Your task to perform on an android device: toggle translation in the chrome app Image 0: 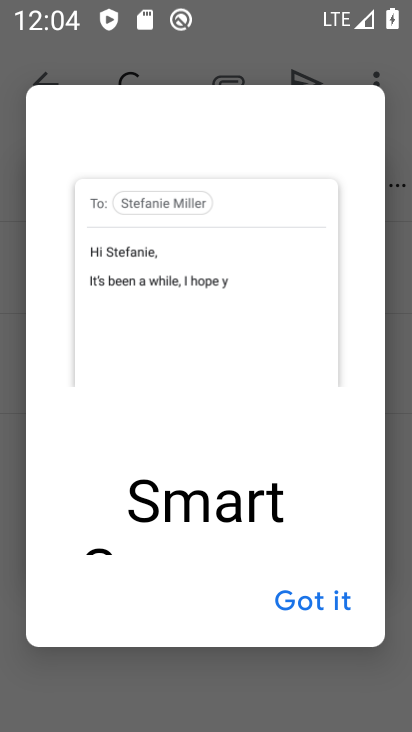
Step 0: press home button
Your task to perform on an android device: toggle translation in the chrome app Image 1: 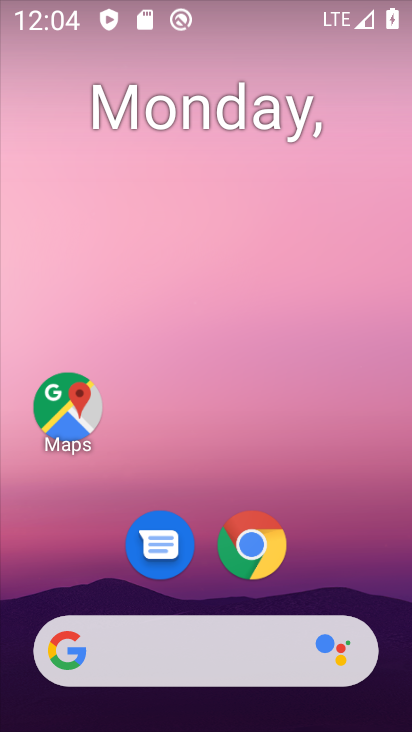
Step 1: drag from (361, 557) to (362, 176)
Your task to perform on an android device: toggle translation in the chrome app Image 2: 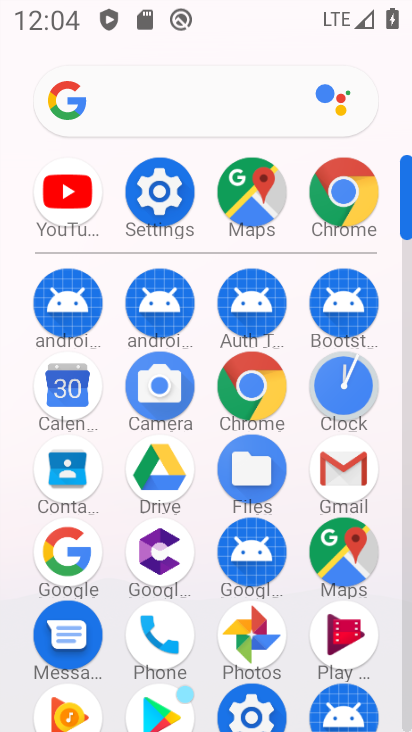
Step 2: click (265, 414)
Your task to perform on an android device: toggle translation in the chrome app Image 3: 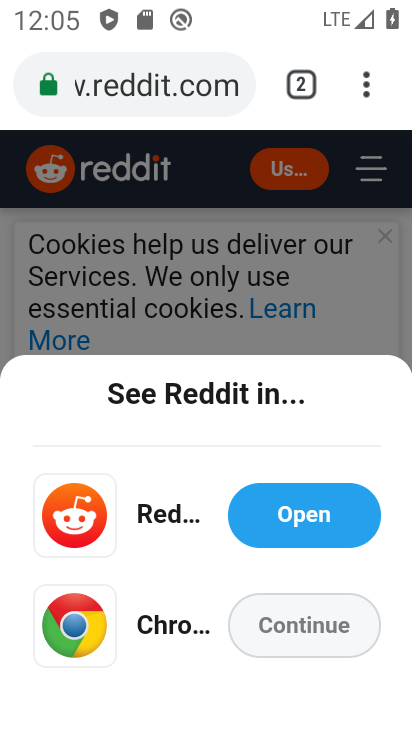
Step 3: click (362, 93)
Your task to perform on an android device: toggle translation in the chrome app Image 4: 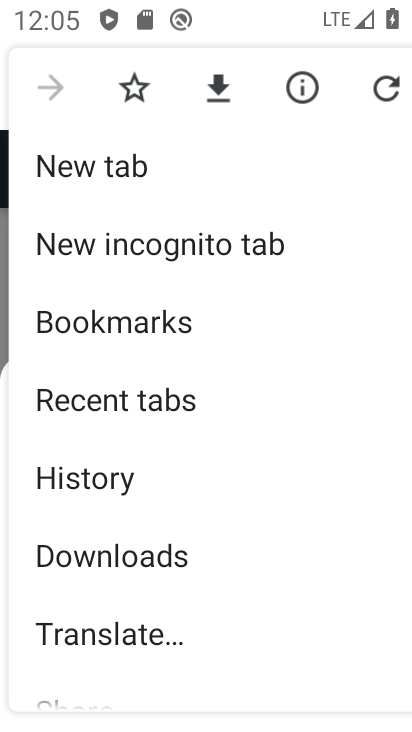
Step 4: drag from (324, 502) to (322, 435)
Your task to perform on an android device: toggle translation in the chrome app Image 5: 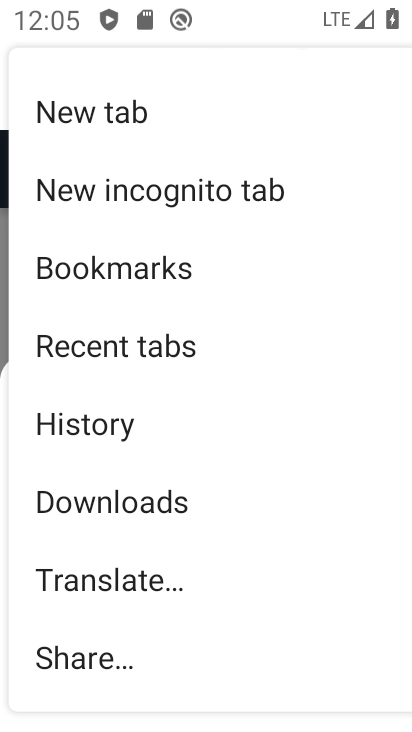
Step 5: drag from (323, 551) to (328, 514)
Your task to perform on an android device: toggle translation in the chrome app Image 6: 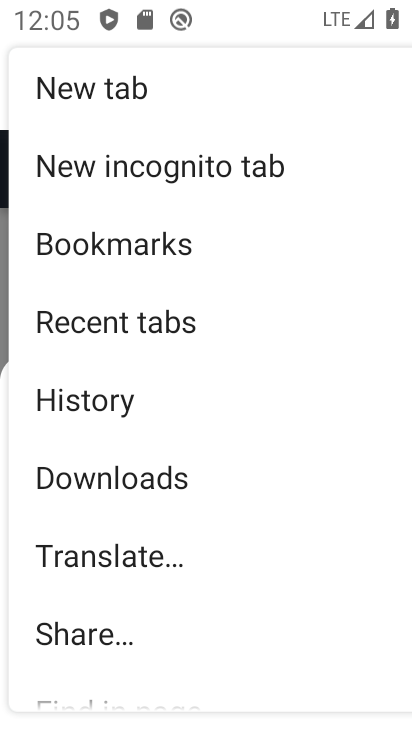
Step 6: drag from (320, 571) to (330, 497)
Your task to perform on an android device: toggle translation in the chrome app Image 7: 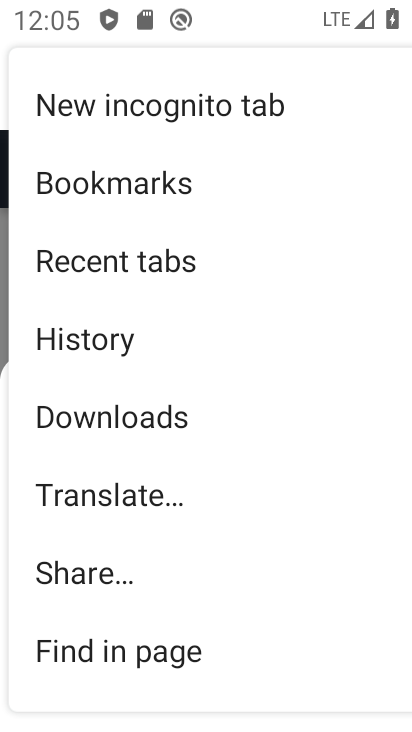
Step 7: drag from (328, 471) to (315, 538)
Your task to perform on an android device: toggle translation in the chrome app Image 8: 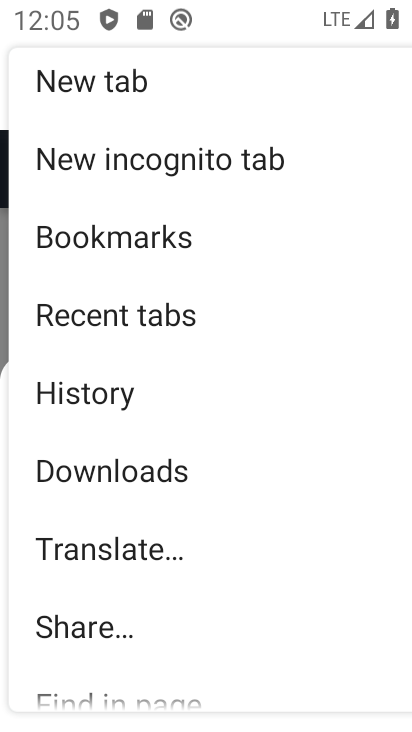
Step 8: drag from (312, 470) to (305, 507)
Your task to perform on an android device: toggle translation in the chrome app Image 9: 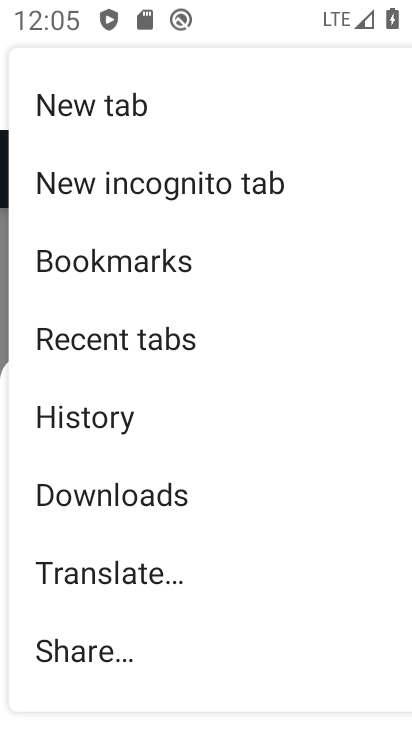
Step 9: click (306, 465)
Your task to perform on an android device: toggle translation in the chrome app Image 10: 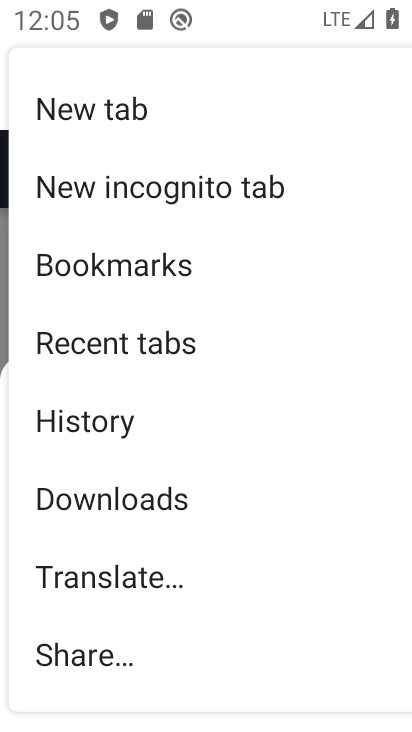
Step 10: drag from (249, 582) to (257, 460)
Your task to perform on an android device: toggle translation in the chrome app Image 11: 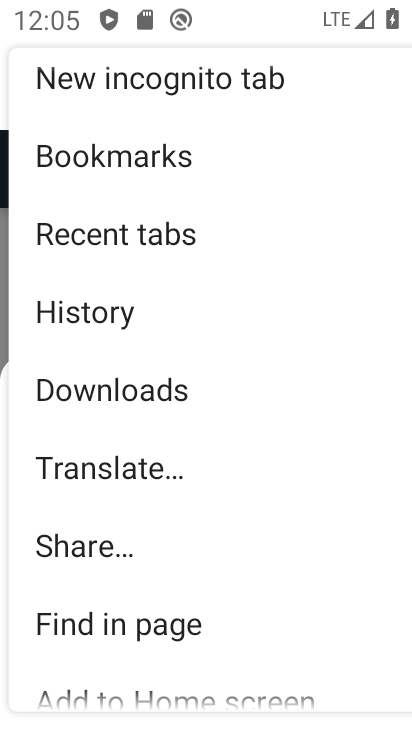
Step 11: drag from (279, 591) to (300, 410)
Your task to perform on an android device: toggle translation in the chrome app Image 12: 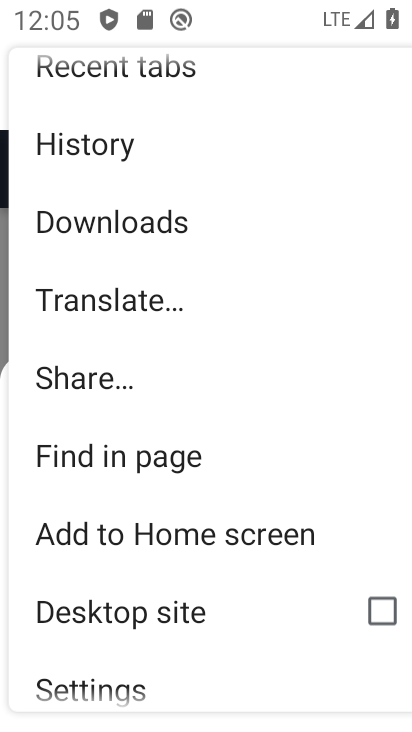
Step 12: drag from (300, 604) to (308, 472)
Your task to perform on an android device: toggle translation in the chrome app Image 13: 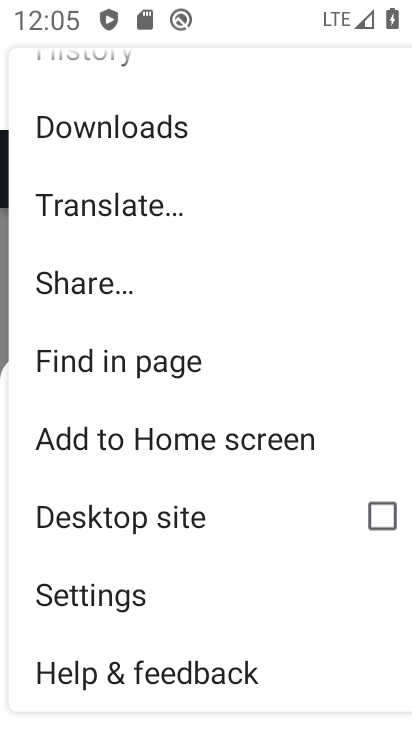
Step 13: click (148, 619)
Your task to perform on an android device: toggle translation in the chrome app Image 14: 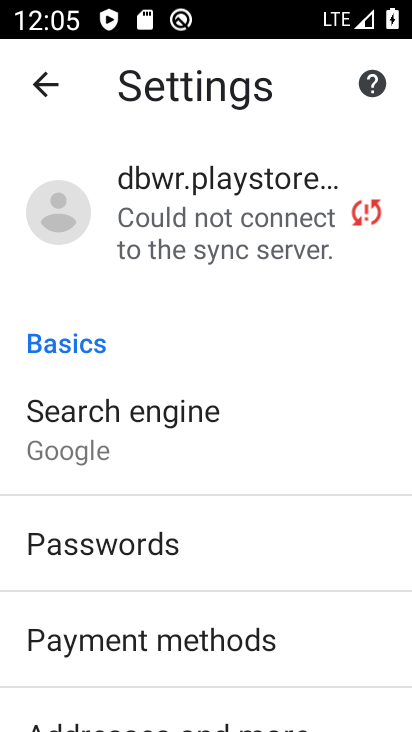
Step 14: drag from (272, 570) to (299, 488)
Your task to perform on an android device: toggle translation in the chrome app Image 15: 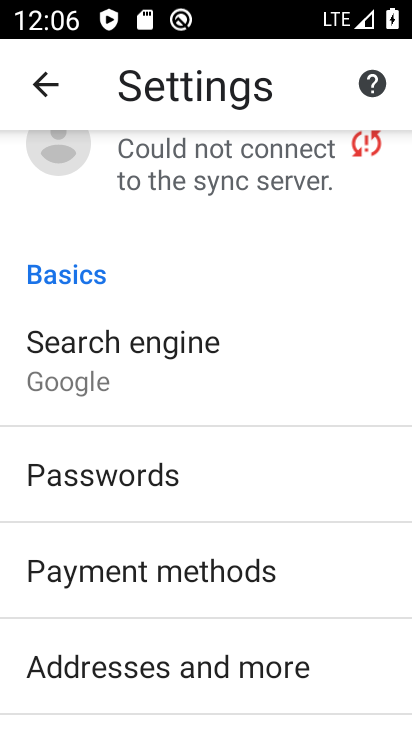
Step 15: drag from (315, 607) to (346, 463)
Your task to perform on an android device: toggle translation in the chrome app Image 16: 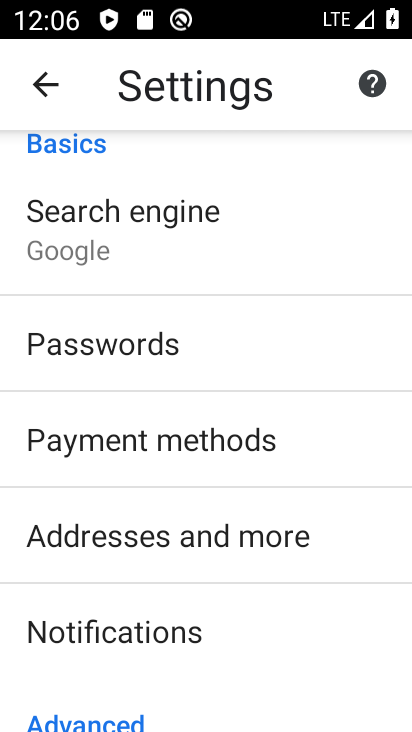
Step 16: drag from (361, 645) to (356, 474)
Your task to perform on an android device: toggle translation in the chrome app Image 17: 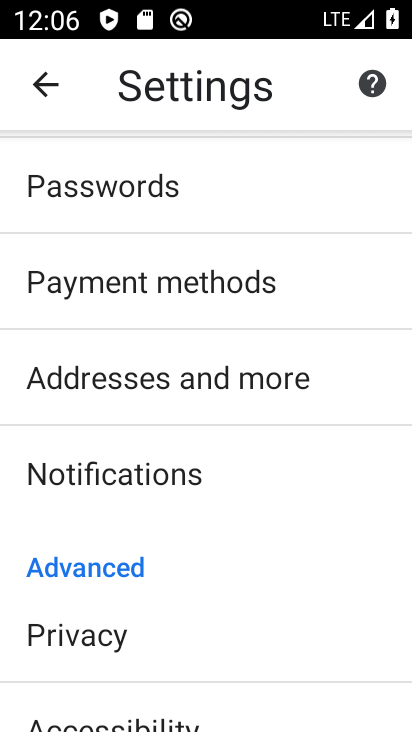
Step 17: drag from (320, 655) to (327, 525)
Your task to perform on an android device: toggle translation in the chrome app Image 18: 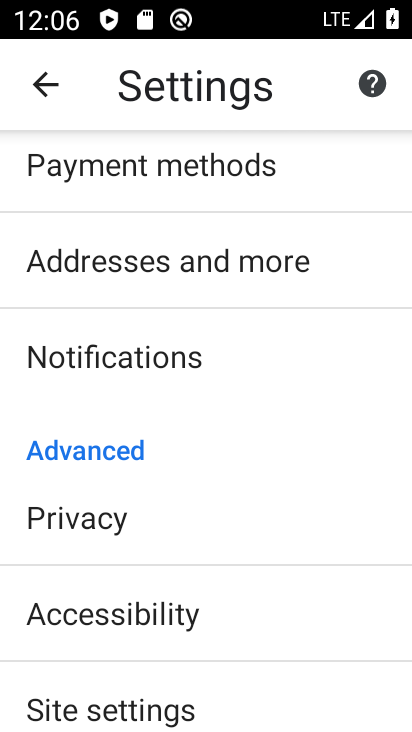
Step 18: drag from (319, 659) to (317, 503)
Your task to perform on an android device: toggle translation in the chrome app Image 19: 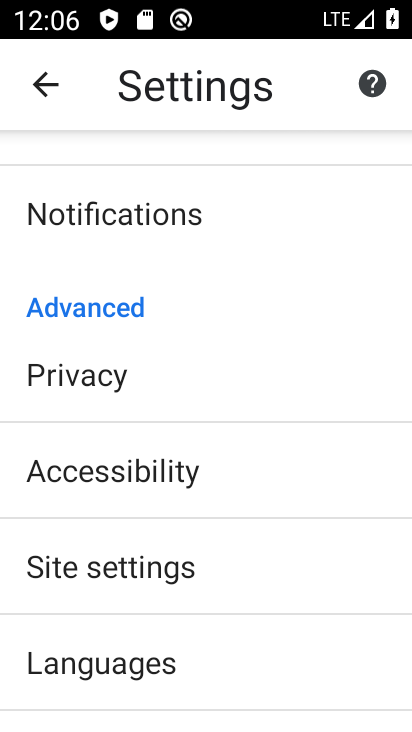
Step 19: drag from (338, 663) to (343, 522)
Your task to perform on an android device: toggle translation in the chrome app Image 20: 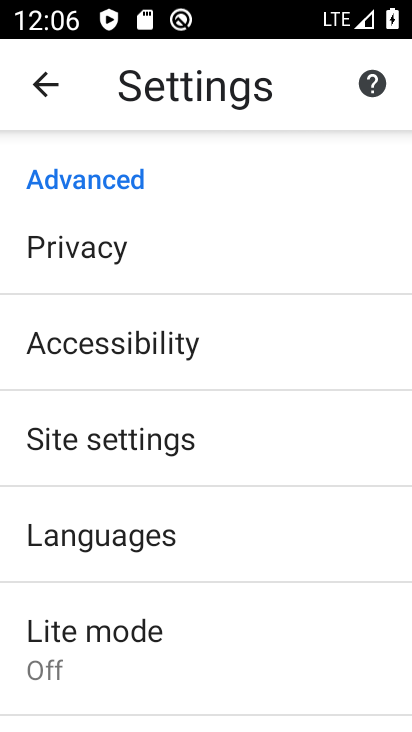
Step 20: drag from (357, 661) to (357, 577)
Your task to perform on an android device: toggle translation in the chrome app Image 21: 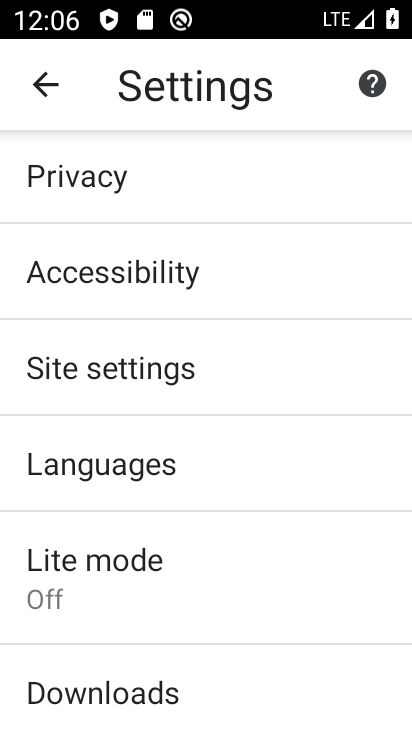
Step 21: drag from (372, 661) to (374, 616)
Your task to perform on an android device: toggle translation in the chrome app Image 22: 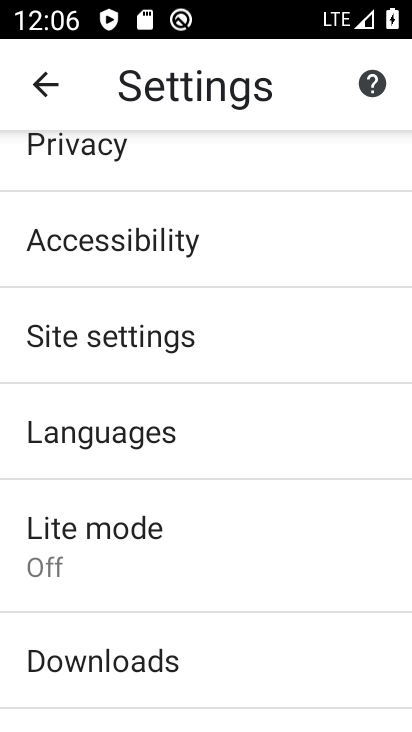
Step 22: click (230, 426)
Your task to perform on an android device: toggle translation in the chrome app Image 23: 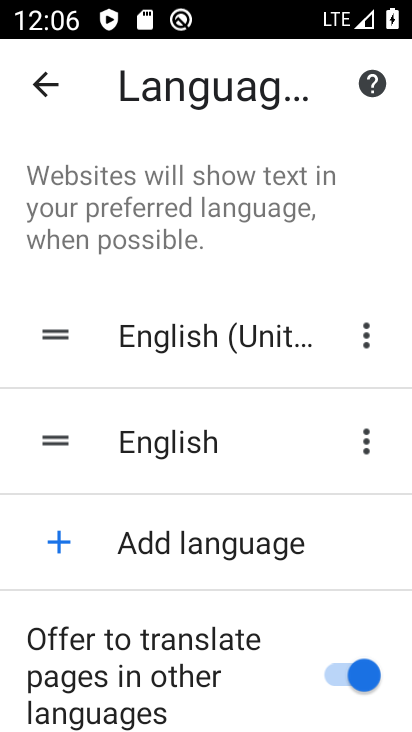
Step 23: click (347, 679)
Your task to perform on an android device: toggle translation in the chrome app Image 24: 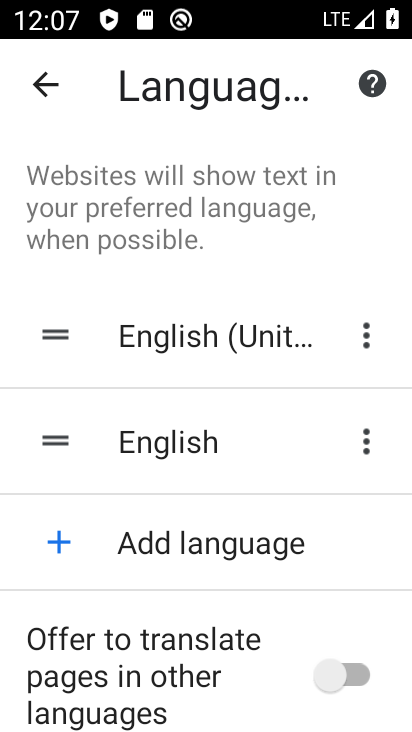
Step 24: task complete